Your task to perform on an android device: Show me popular games on the Play Store Image 0: 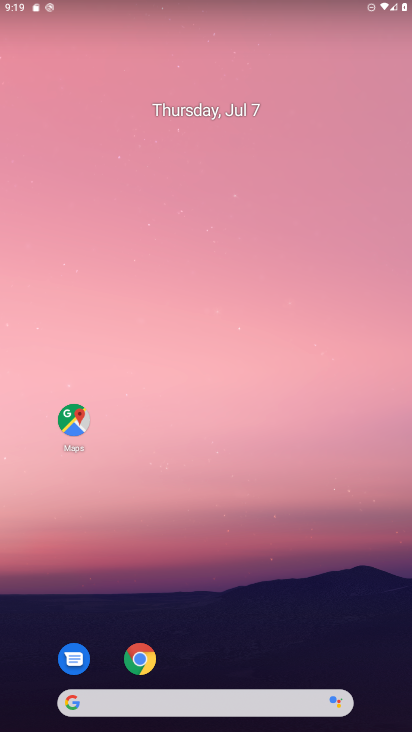
Step 0: drag from (376, 663) to (347, 195)
Your task to perform on an android device: Show me popular games on the Play Store Image 1: 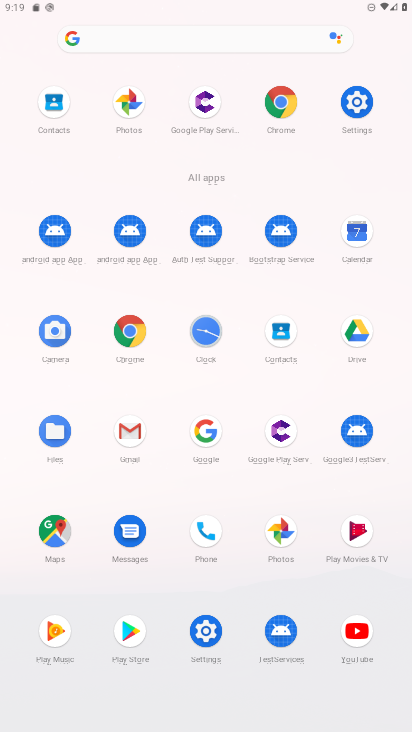
Step 1: click (127, 639)
Your task to perform on an android device: Show me popular games on the Play Store Image 2: 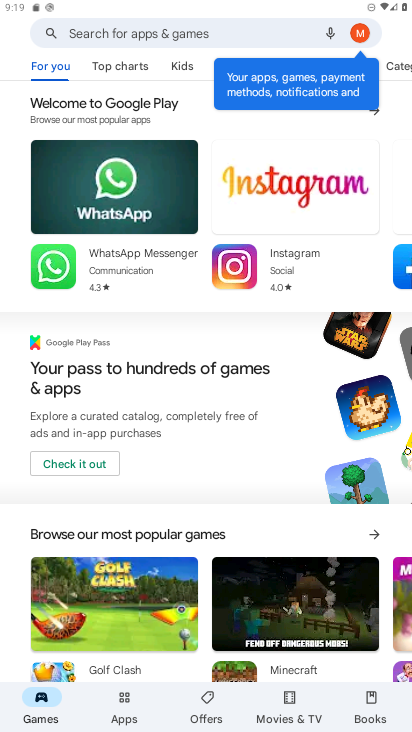
Step 2: click (127, 706)
Your task to perform on an android device: Show me popular games on the Play Store Image 3: 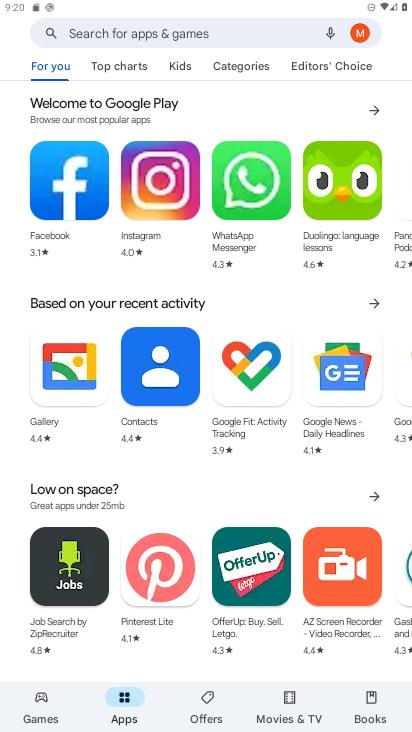
Step 3: click (59, 710)
Your task to perform on an android device: Show me popular games on the Play Store Image 4: 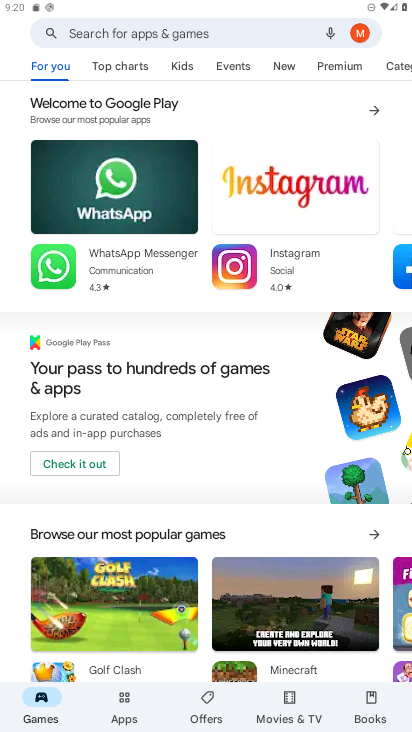
Step 4: click (143, 63)
Your task to perform on an android device: Show me popular games on the Play Store Image 5: 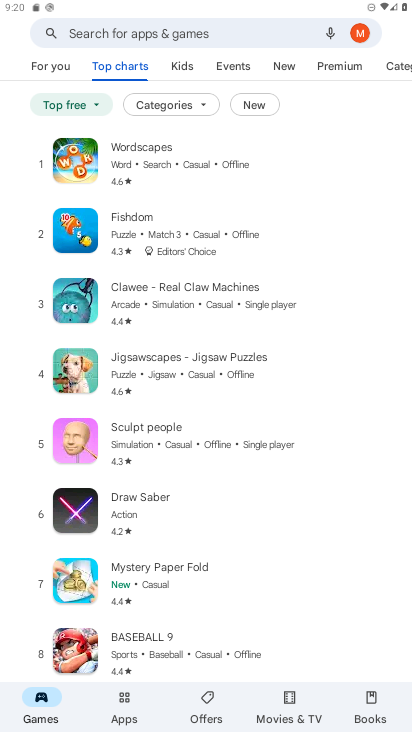
Step 5: task complete